Your task to perform on an android device: set an alarm Image 0: 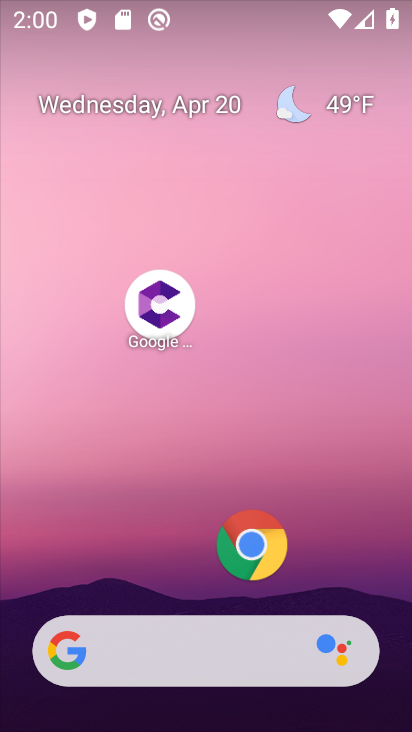
Step 0: drag from (202, 566) to (261, 34)
Your task to perform on an android device: set an alarm Image 1: 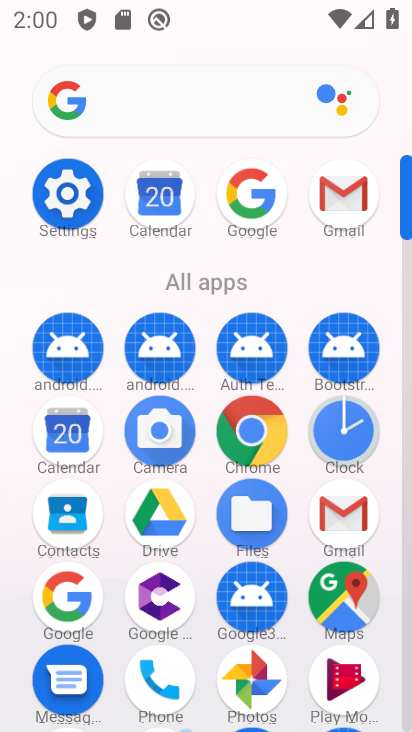
Step 1: click (346, 432)
Your task to perform on an android device: set an alarm Image 2: 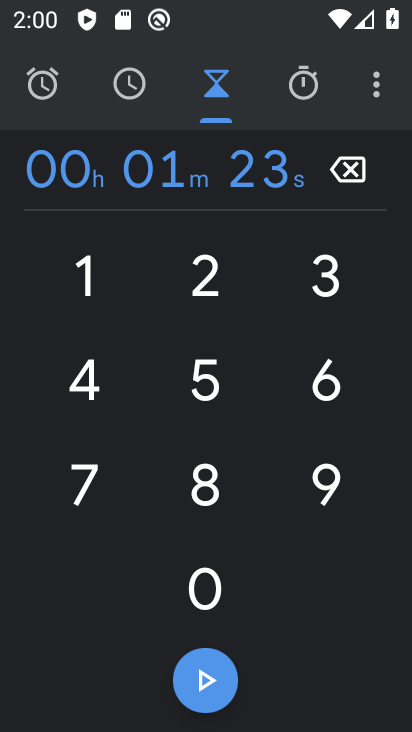
Step 2: click (53, 95)
Your task to perform on an android device: set an alarm Image 3: 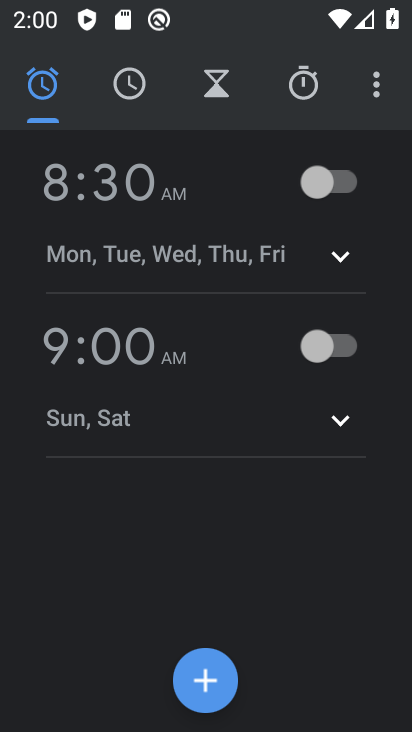
Step 3: click (204, 677)
Your task to perform on an android device: set an alarm Image 4: 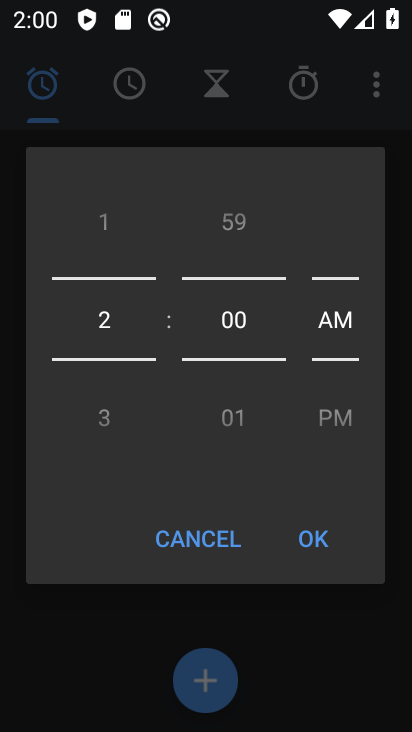
Step 4: drag from (119, 335) to (154, 231)
Your task to perform on an android device: set an alarm Image 5: 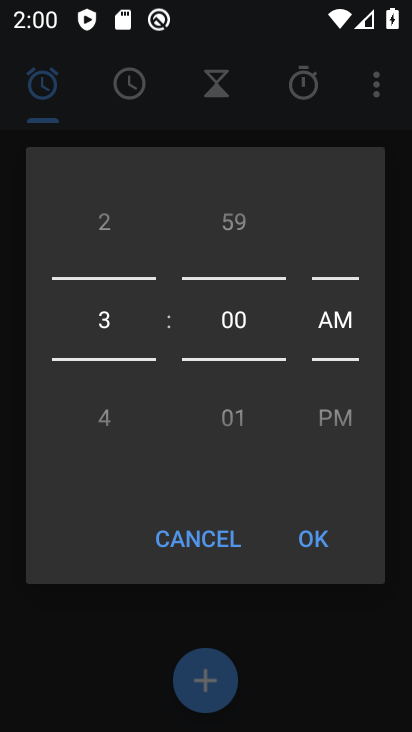
Step 5: drag from (244, 252) to (266, 386)
Your task to perform on an android device: set an alarm Image 6: 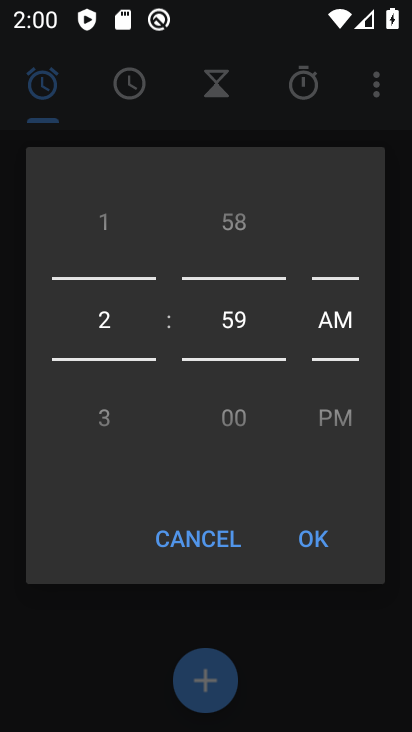
Step 6: drag from (245, 242) to (272, 397)
Your task to perform on an android device: set an alarm Image 7: 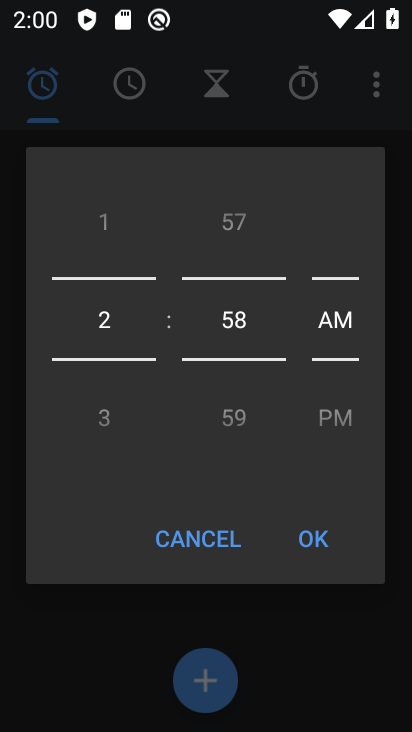
Step 7: drag from (340, 414) to (362, 277)
Your task to perform on an android device: set an alarm Image 8: 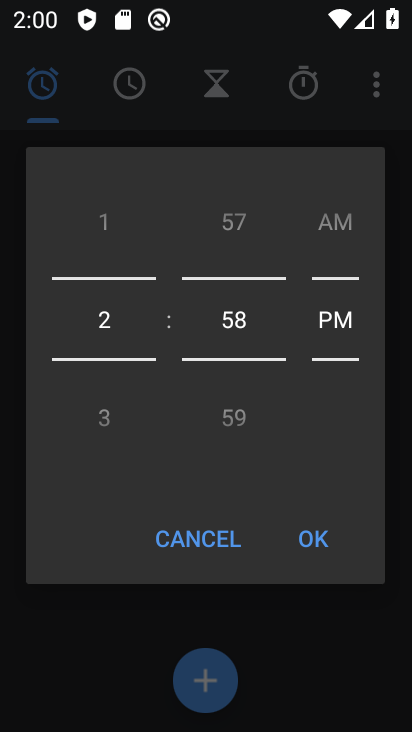
Step 8: click (310, 539)
Your task to perform on an android device: set an alarm Image 9: 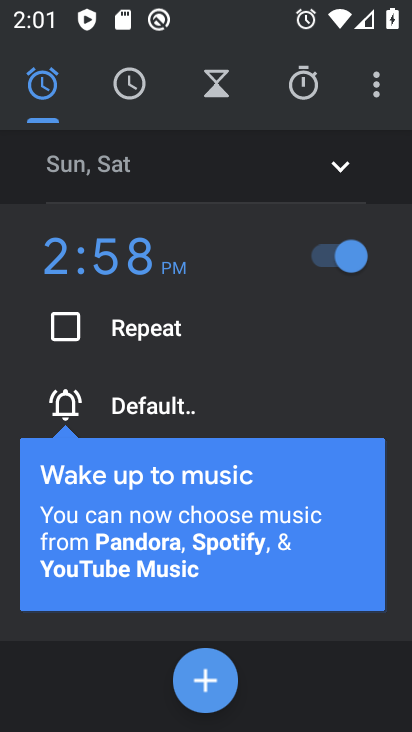
Step 9: click (224, 222)
Your task to perform on an android device: set an alarm Image 10: 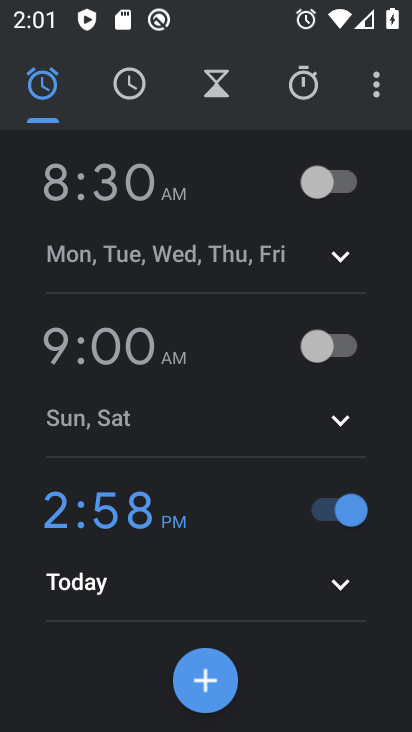
Step 10: task complete